Your task to perform on an android device: read, delete, or share a saved page in the chrome app Image 0: 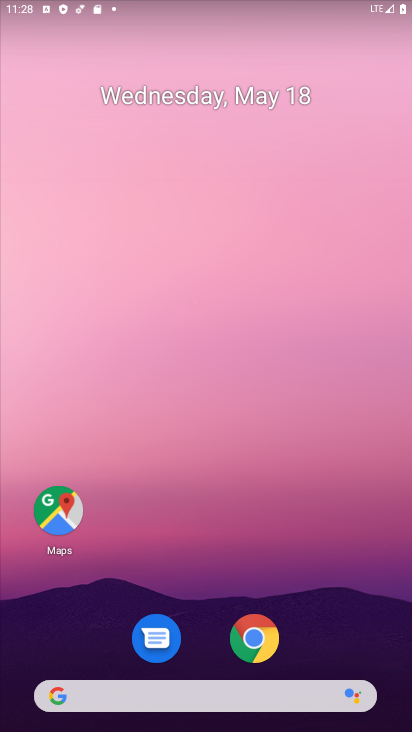
Step 0: drag from (333, 627) to (266, 84)
Your task to perform on an android device: read, delete, or share a saved page in the chrome app Image 1: 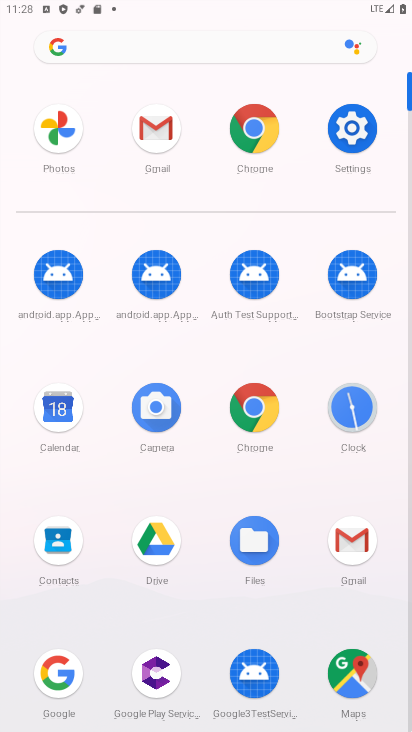
Step 1: click (259, 395)
Your task to perform on an android device: read, delete, or share a saved page in the chrome app Image 2: 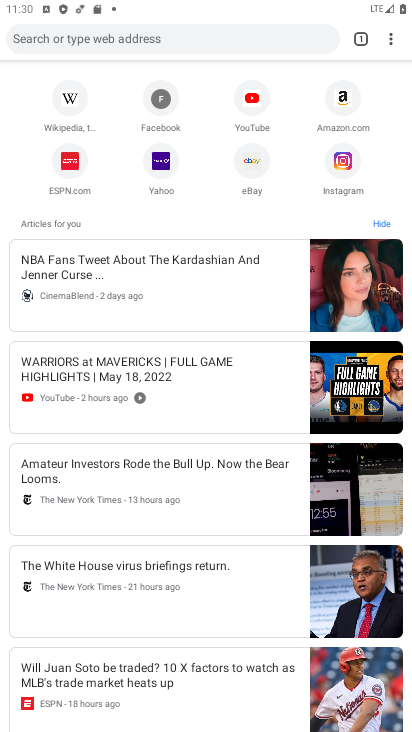
Step 2: task complete